Your task to perform on an android device: Go to settings Image 0: 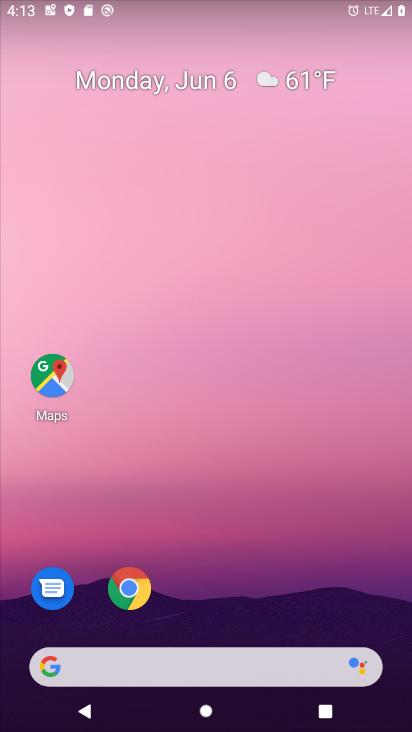
Step 0: drag from (233, 622) to (201, 227)
Your task to perform on an android device: Go to settings Image 1: 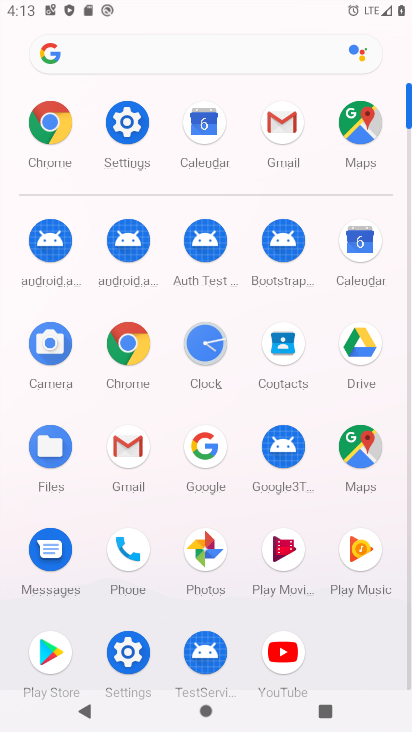
Step 1: click (118, 120)
Your task to perform on an android device: Go to settings Image 2: 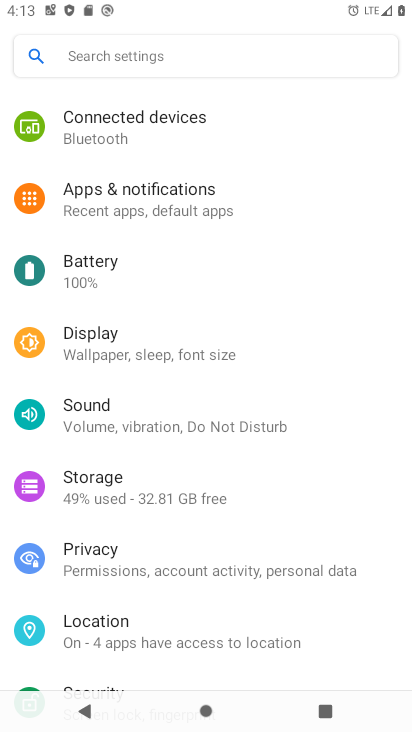
Step 2: task complete